Your task to perform on an android device: Open calendar and show me the first week of next month Image 0: 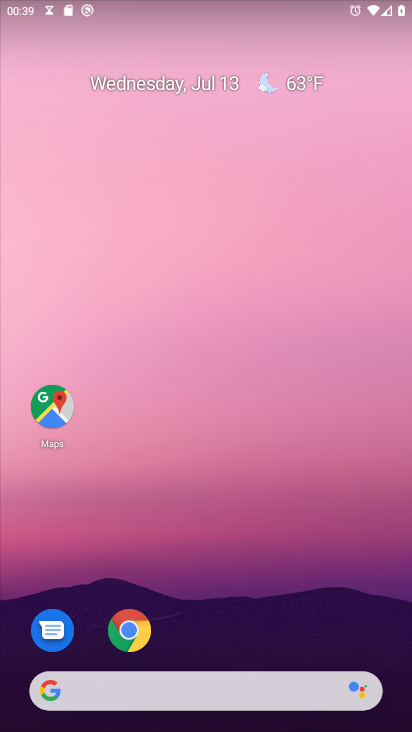
Step 0: drag from (234, 700) to (293, 250)
Your task to perform on an android device: Open calendar and show me the first week of next month Image 1: 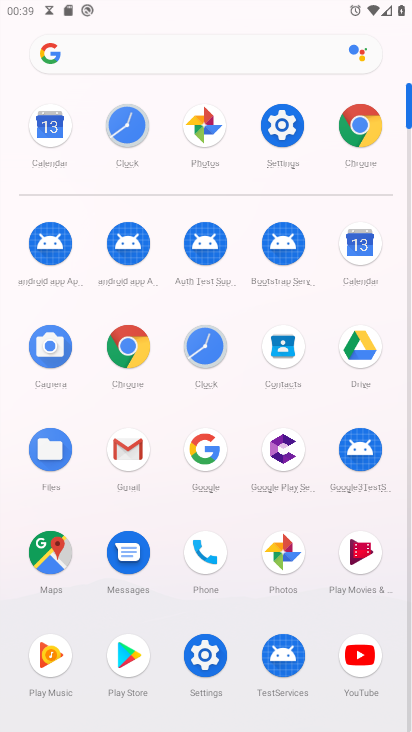
Step 1: click (369, 244)
Your task to perform on an android device: Open calendar and show me the first week of next month Image 2: 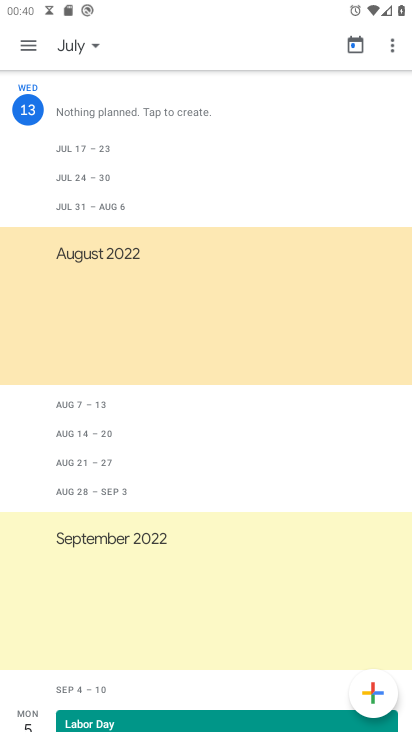
Step 2: click (23, 66)
Your task to perform on an android device: Open calendar and show me the first week of next month Image 3: 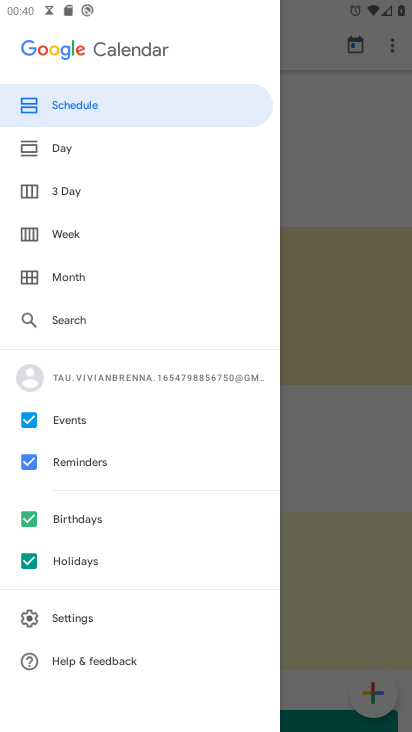
Step 3: click (89, 272)
Your task to perform on an android device: Open calendar and show me the first week of next month Image 4: 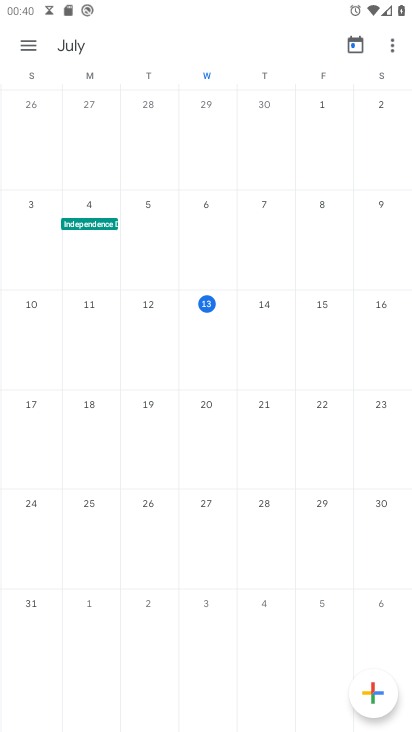
Step 4: task complete